Your task to perform on an android device: set an alarm Image 0: 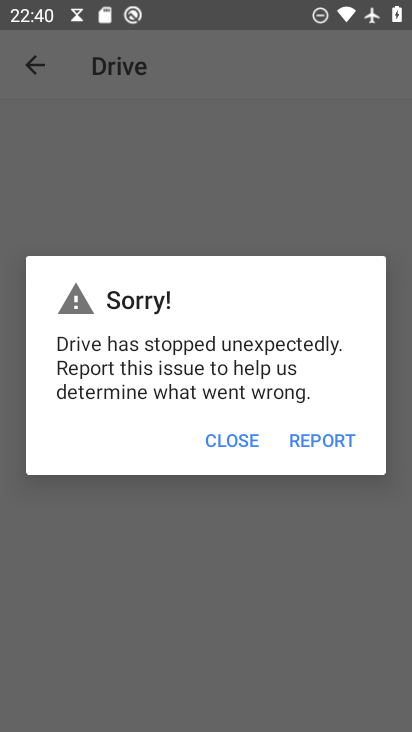
Step 0: press home button
Your task to perform on an android device: set an alarm Image 1: 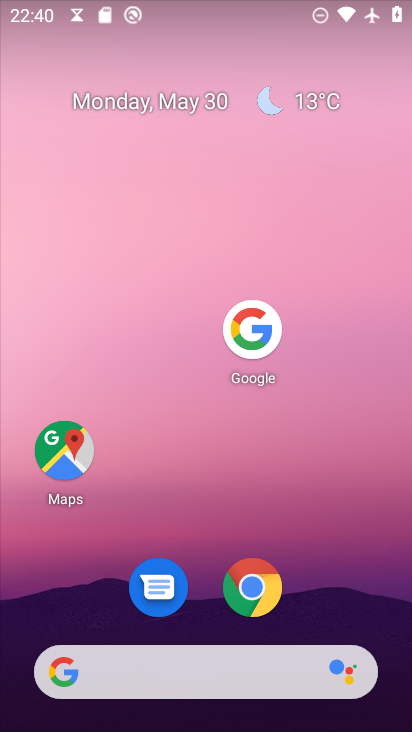
Step 1: drag from (202, 699) to (218, 113)
Your task to perform on an android device: set an alarm Image 2: 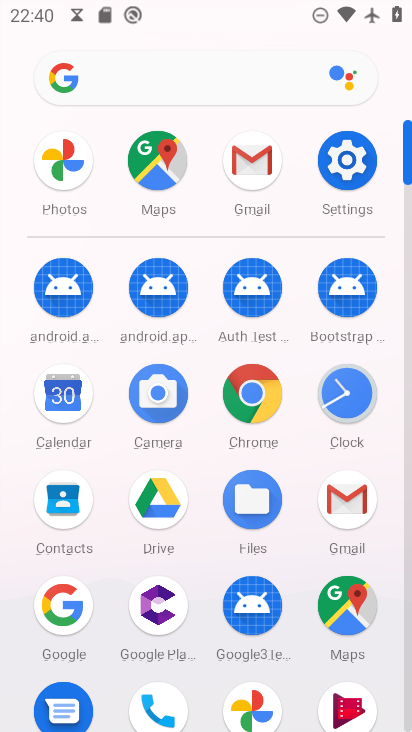
Step 2: click (355, 406)
Your task to perform on an android device: set an alarm Image 3: 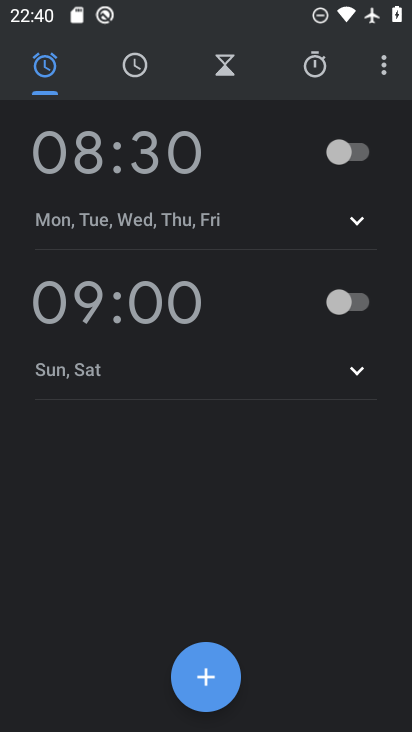
Step 3: click (361, 152)
Your task to perform on an android device: set an alarm Image 4: 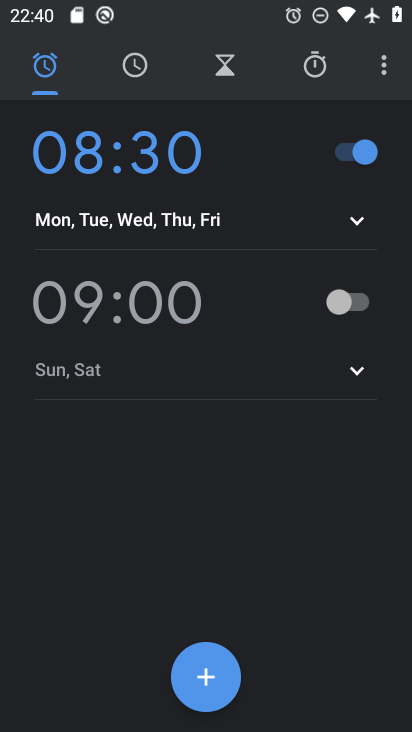
Step 4: task complete